Your task to perform on an android device: turn pop-ups on in chrome Image 0: 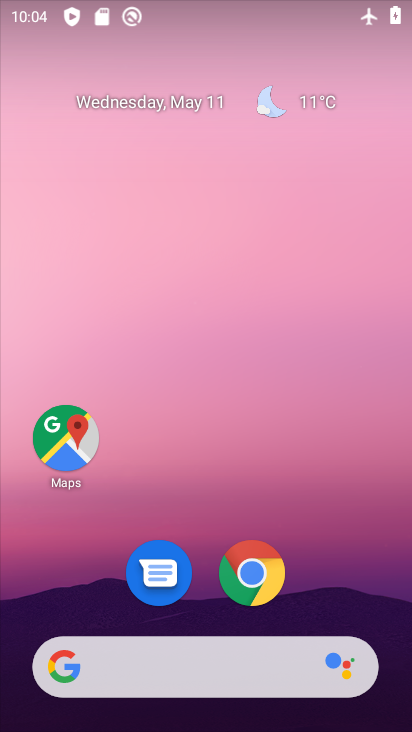
Step 0: click (253, 573)
Your task to perform on an android device: turn pop-ups on in chrome Image 1: 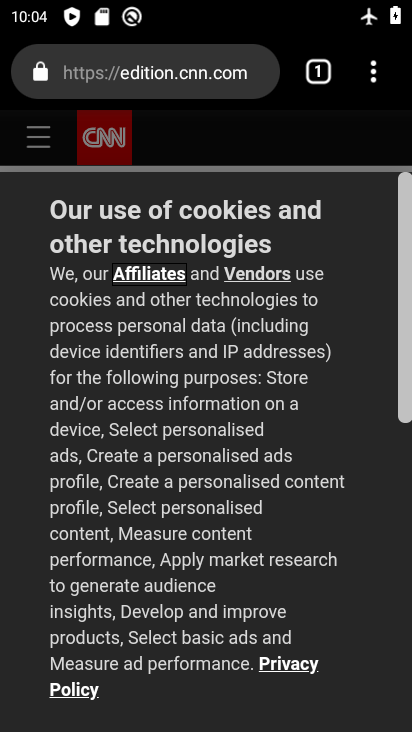
Step 1: click (373, 73)
Your task to perform on an android device: turn pop-ups on in chrome Image 2: 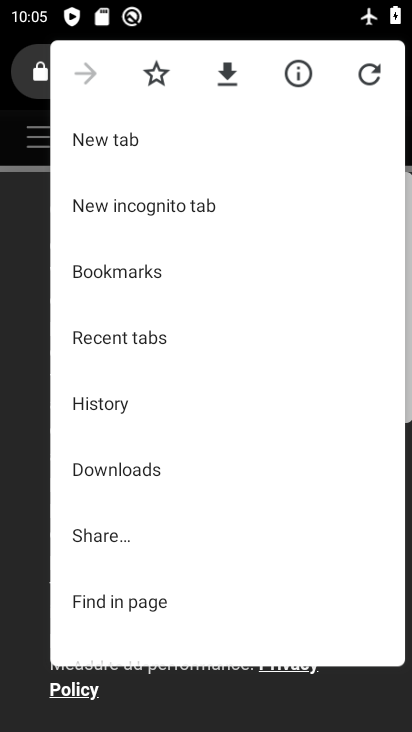
Step 2: drag from (180, 580) to (271, 150)
Your task to perform on an android device: turn pop-ups on in chrome Image 3: 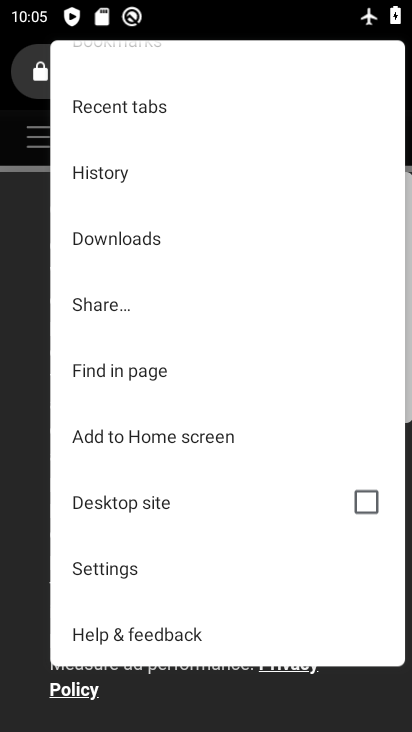
Step 3: click (154, 570)
Your task to perform on an android device: turn pop-ups on in chrome Image 4: 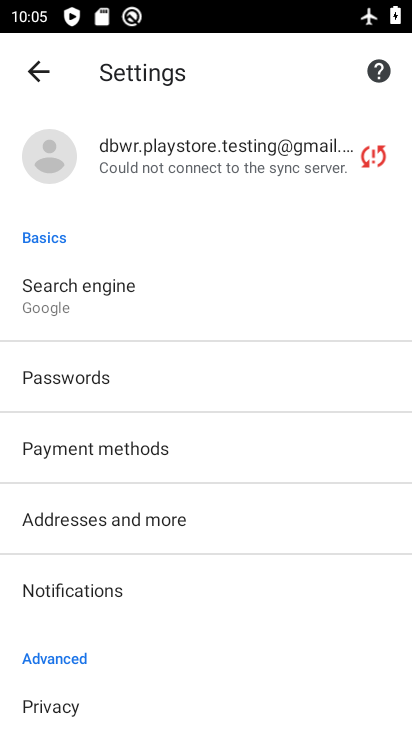
Step 4: drag from (142, 598) to (261, 42)
Your task to perform on an android device: turn pop-ups on in chrome Image 5: 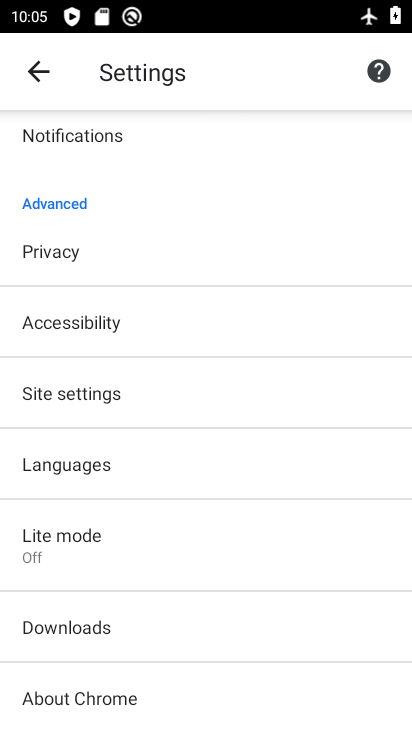
Step 5: click (151, 384)
Your task to perform on an android device: turn pop-ups on in chrome Image 6: 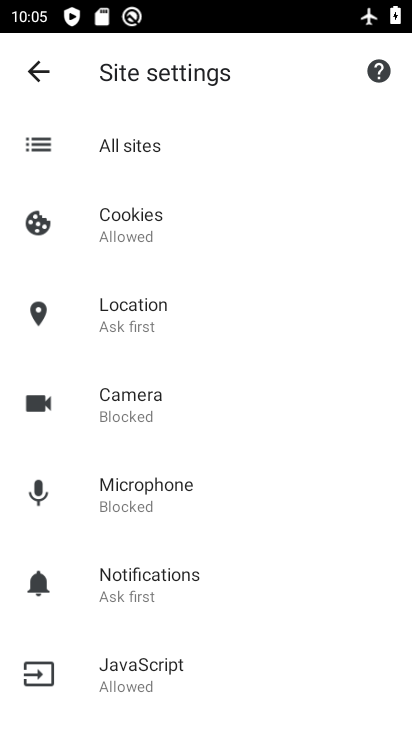
Step 6: drag from (183, 569) to (211, 306)
Your task to perform on an android device: turn pop-ups on in chrome Image 7: 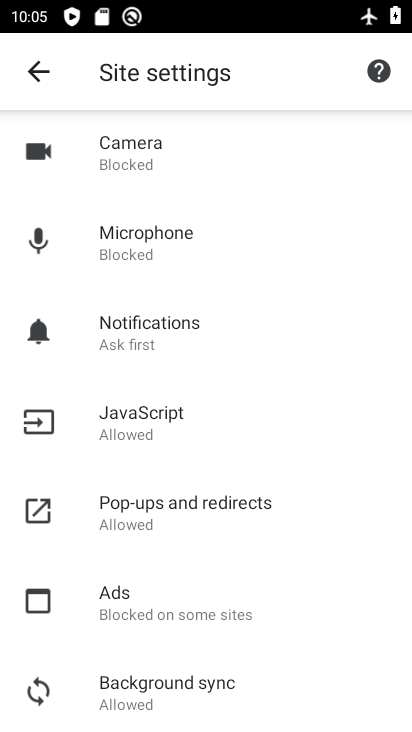
Step 7: click (174, 509)
Your task to perform on an android device: turn pop-ups on in chrome Image 8: 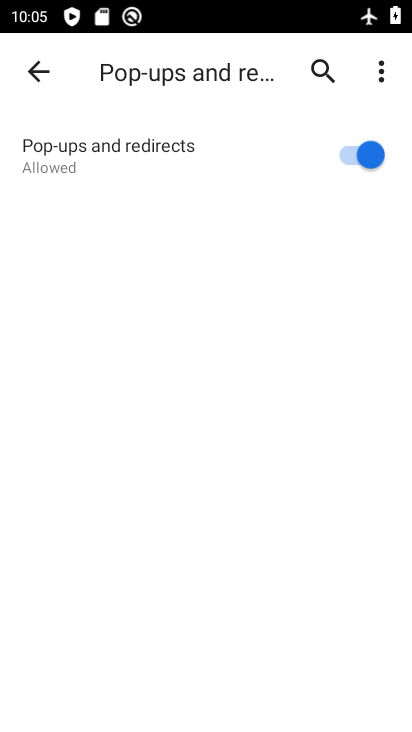
Step 8: task complete